Your task to perform on an android device: change alarm snooze length Image 0: 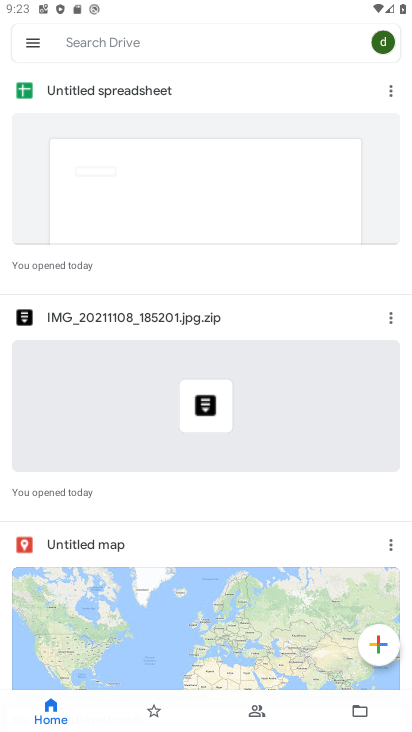
Step 0: press home button
Your task to perform on an android device: change alarm snooze length Image 1: 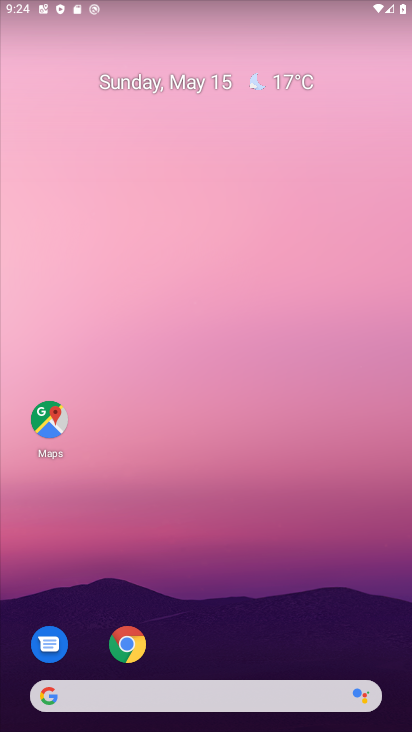
Step 1: click (215, 259)
Your task to perform on an android device: change alarm snooze length Image 2: 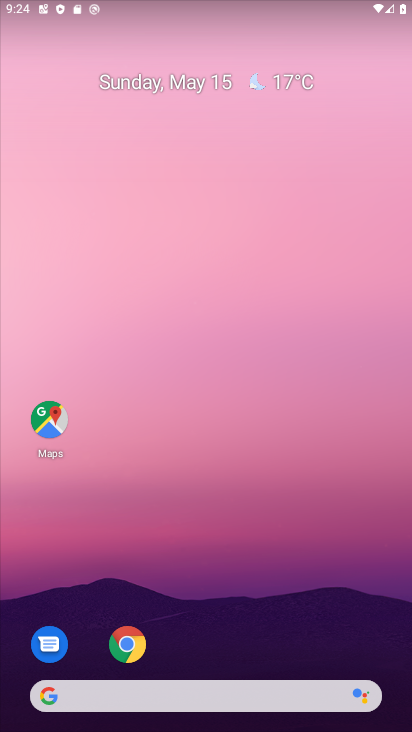
Step 2: drag from (229, 707) to (293, 115)
Your task to perform on an android device: change alarm snooze length Image 3: 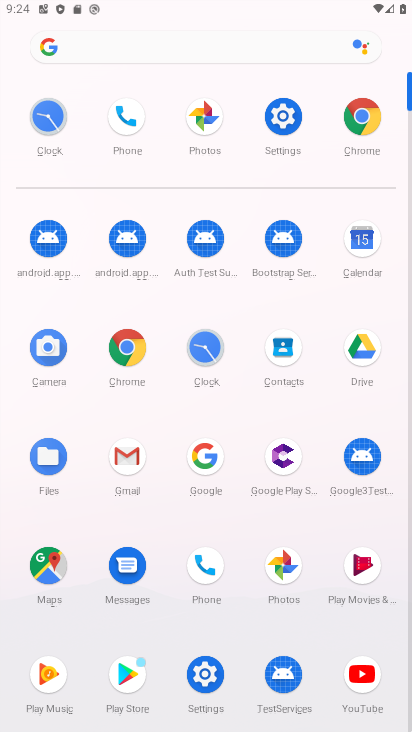
Step 3: click (204, 349)
Your task to perform on an android device: change alarm snooze length Image 4: 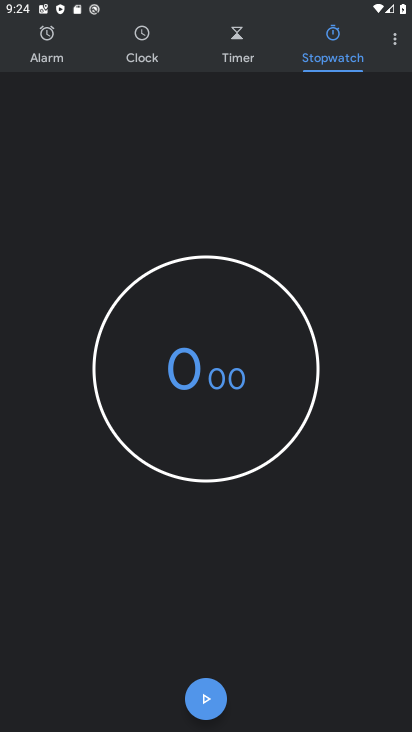
Step 4: click (399, 39)
Your task to perform on an android device: change alarm snooze length Image 5: 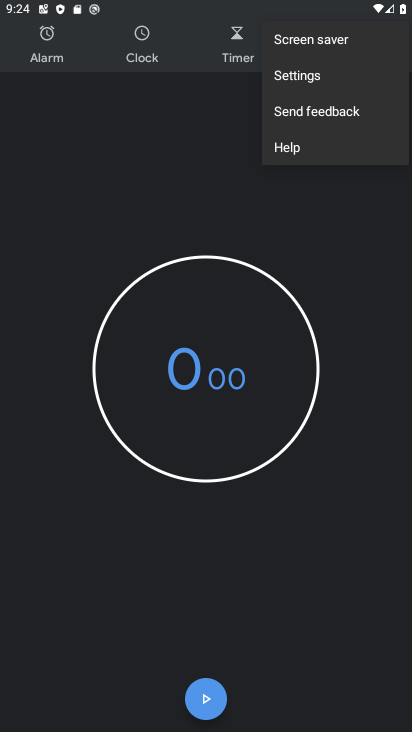
Step 5: click (309, 71)
Your task to perform on an android device: change alarm snooze length Image 6: 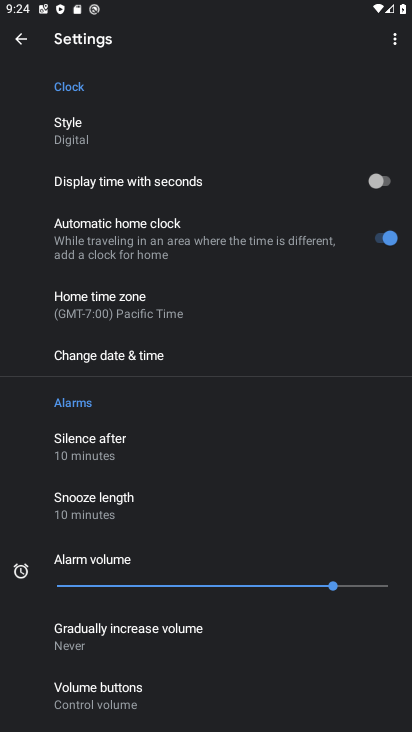
Step 6: click (167, 502)
Your task to perform on an android device: change alarm snooze length Image 7: 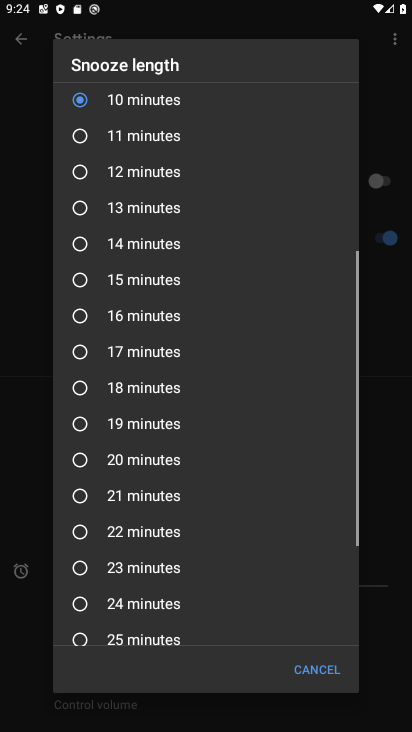
Step 7: click (162, 254)
Your task to perform on an android device: change alarm snooze length Image 8: 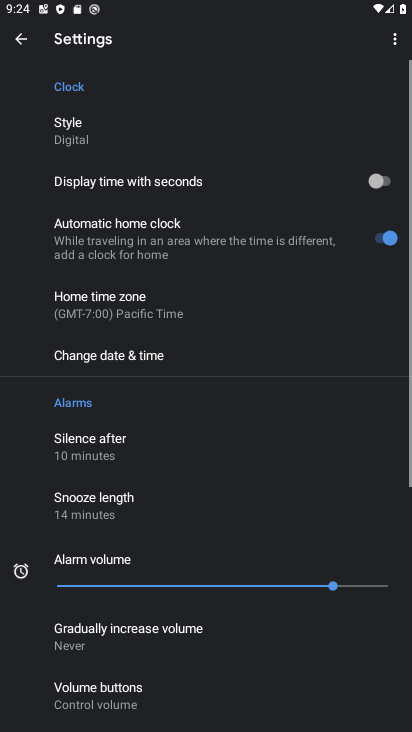
Step 8: task complete